Your task to perform on an android device: Open sound settings Image 0: 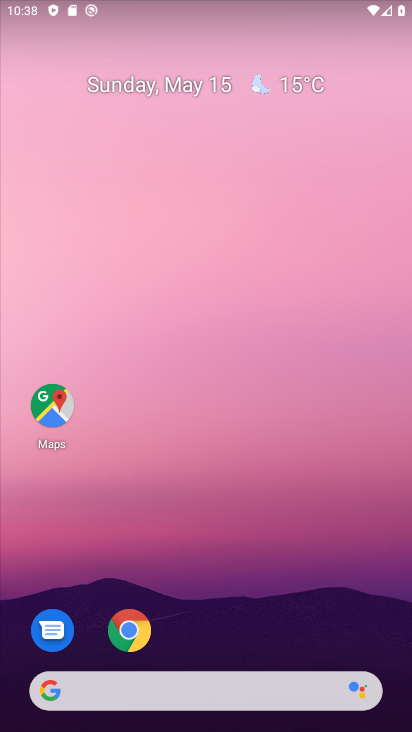
Step 0: drag from (201, 724) to (152, 40)
Your task to perform on an android device: Open sound settings Image 1: 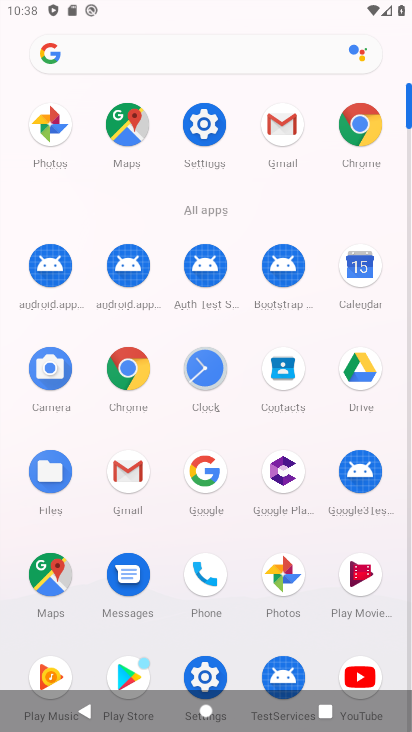
Step 1: click (213, 122)
Your task to perform on an android device: Open sound settings Image 2: 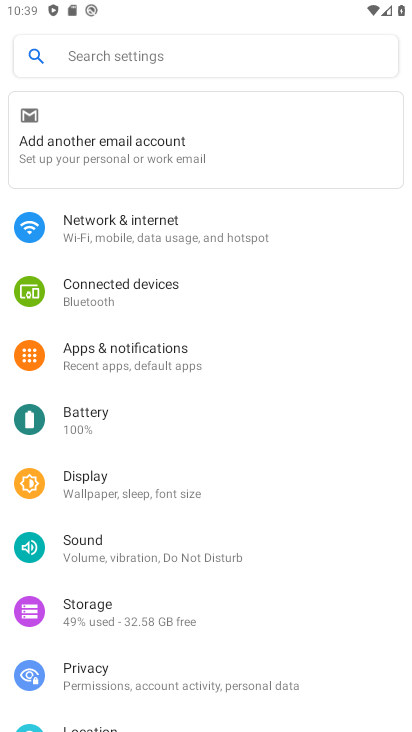
Step 2: click (125, 542)
Your task to perform on an android device: Open sound settings Image 3: 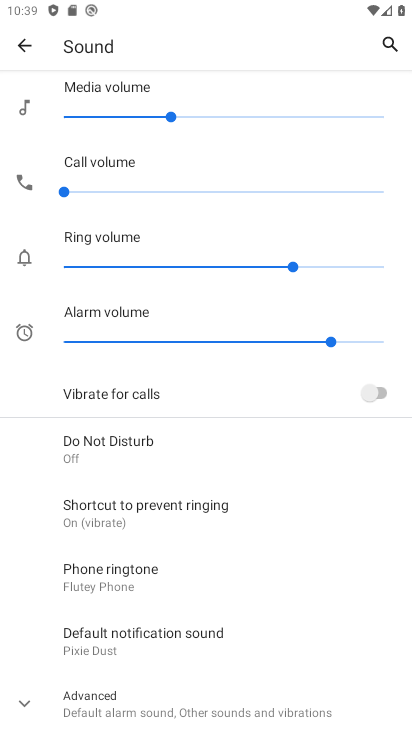
Step 3: task complete